Your task to perform on an android device: Go to Maps Image 0: 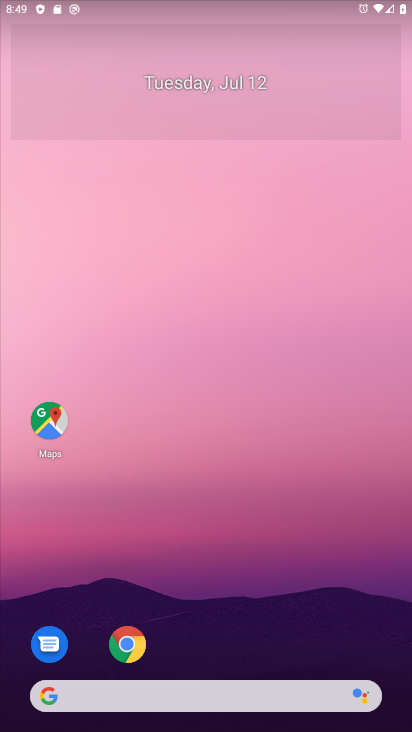
Step 0: click (52, 418)
Your task to perform on an android device: Go to Maps Image 1: 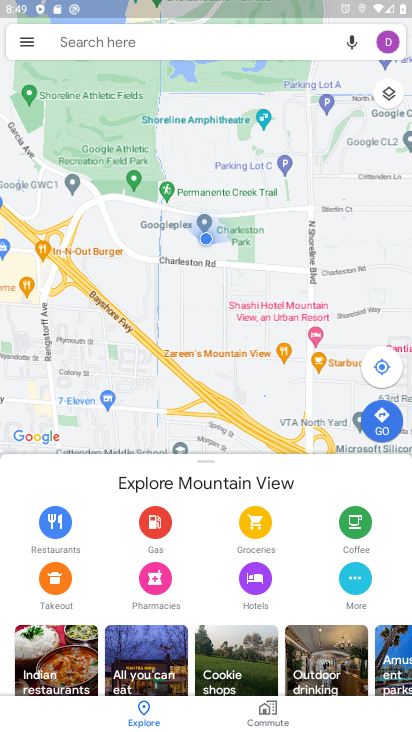
Step 1: task complete